Your task to perform on an android device: Go to battery settings Image 0: 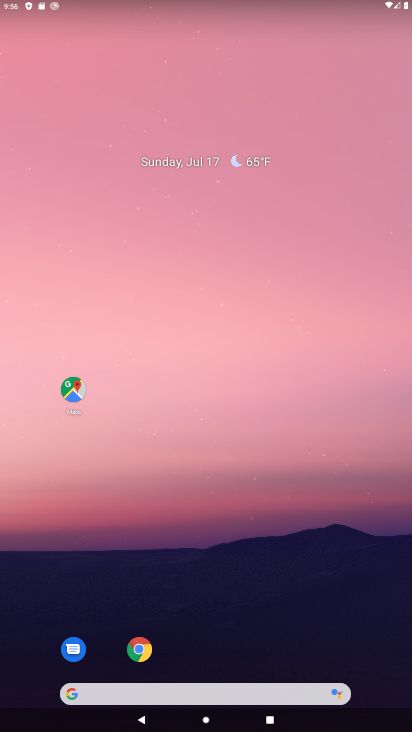
Step 0: drag from (263, 650) to (241, 226)
Your task to perform on an android device: Go to battery settings Image 1: 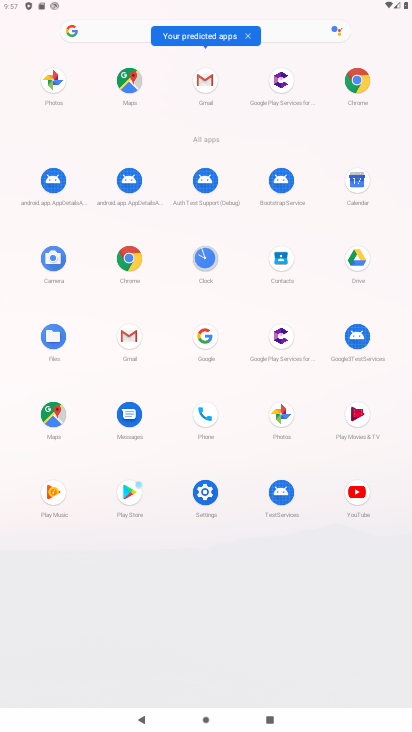
Step 1: click (205, 490)
Your task to perform on an android device: Go to battery settings Image 2: 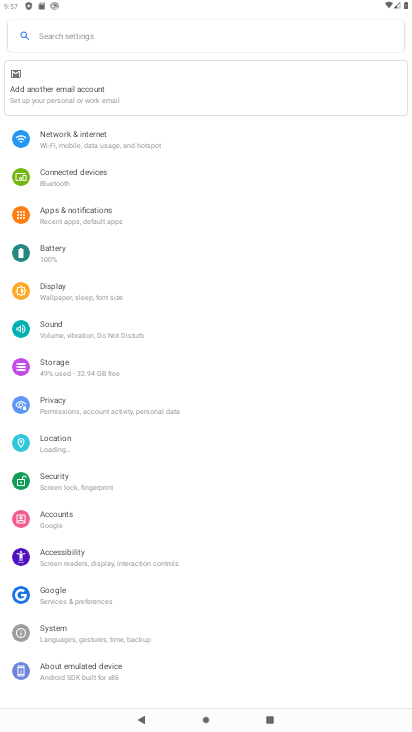
Step 2: click (85, 263)
Your task to perform on an android device: Go to battery settings Image 3: 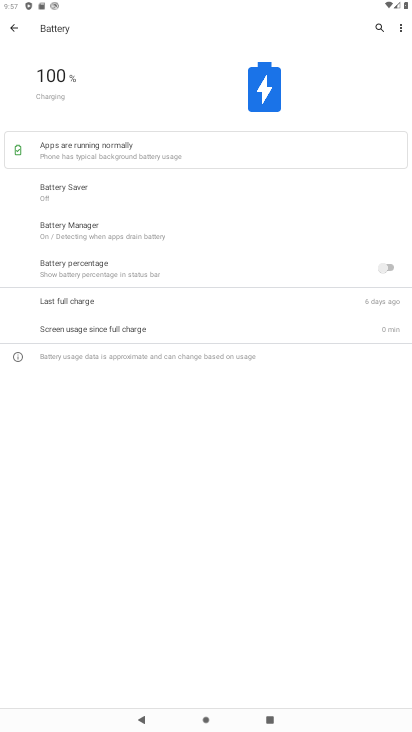
Step 3: task complete